Your task to perform on an android device: Go to battery settings Image 0: 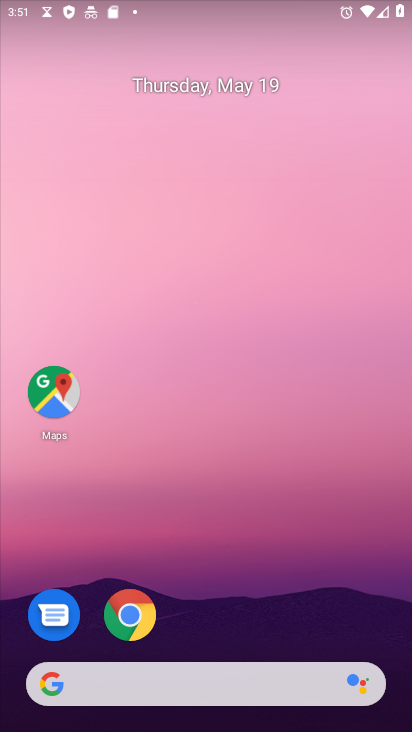
Step 0: drag from (356, 716) to (267, 241)
Your task to perform on an android device: Go to battery settings Image 1: 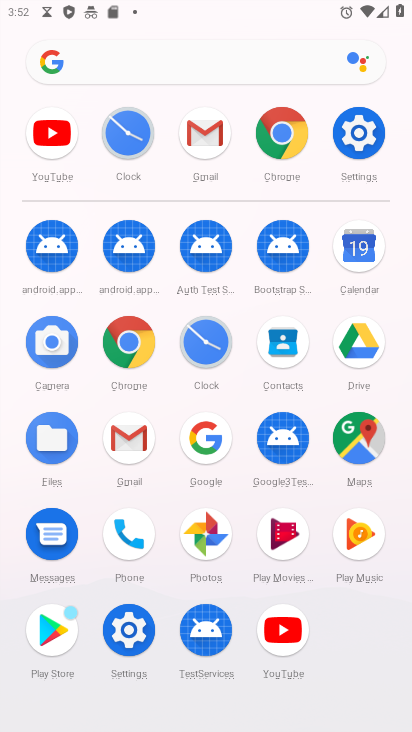
Step 1: click (361, 127)
Your task to perform on an android device: Go to battery settings Image 2: 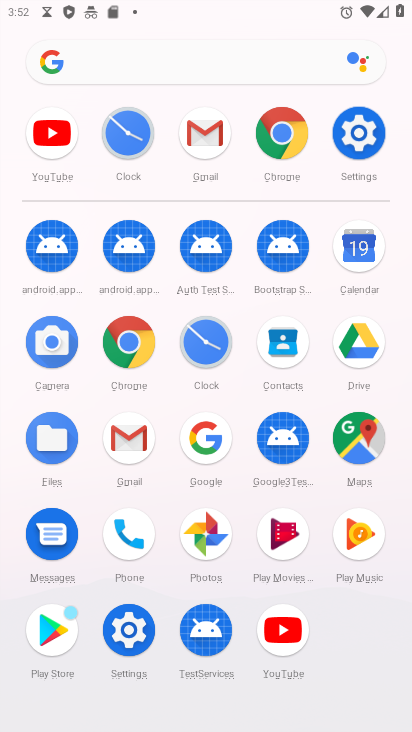
Step 2: click (370, 132)
Your task to perform on an android device: Go to battery settings Image 3: 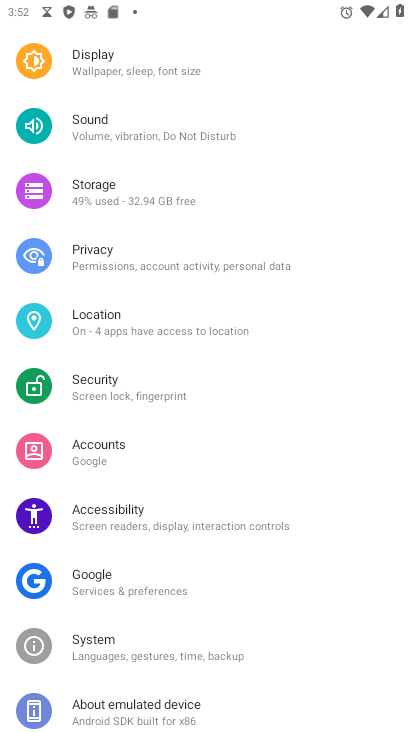
Step 3: click (369, 133)
Your task to perform on an android device: Go to battery settings Image 4: 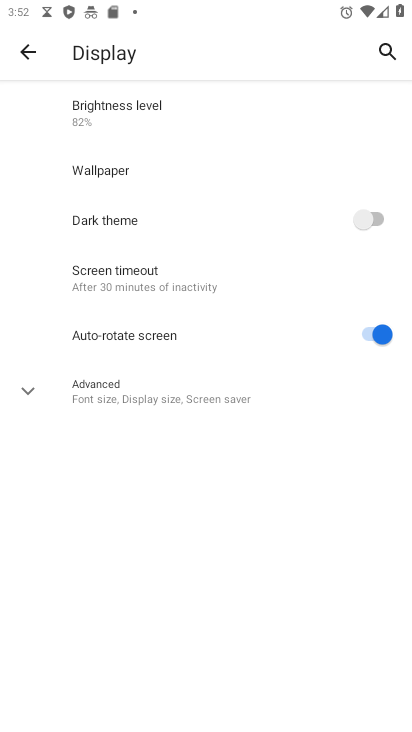
Step 4: click (28, 66)
Your task to perform on an android device: Go to battery settings Image 5: 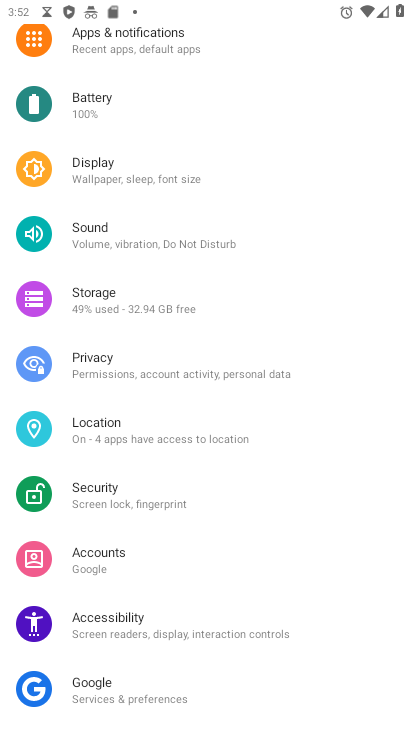
Step 5: click (92, 101)
Your task to perform on an android device: Go to battery settings Image 6: 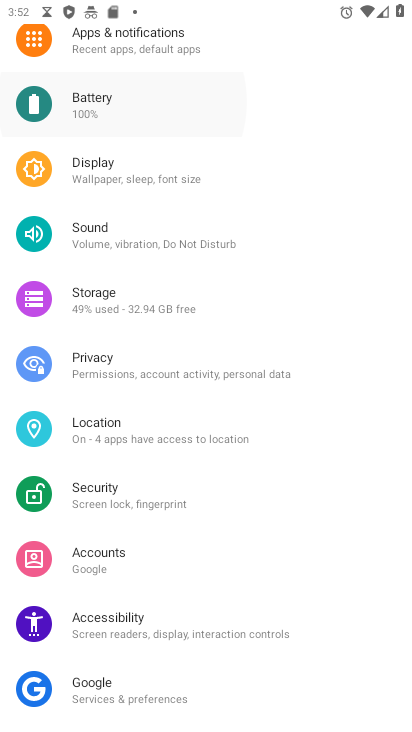
Step 6: click (96, 104)
Your task to perform on an android device: Go to battery settings Image 7: 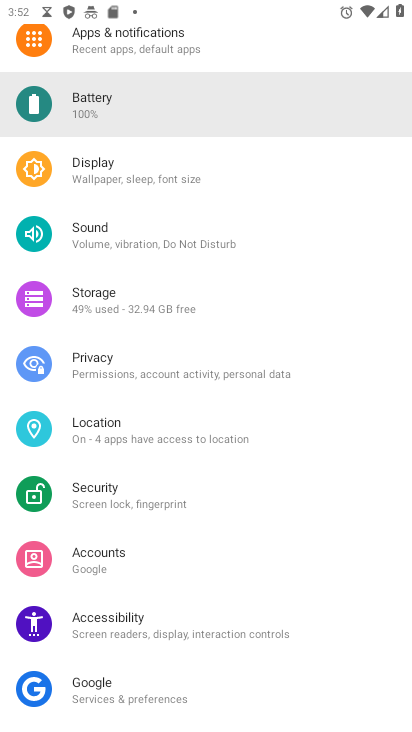
Step 7: click (96, 104)
Your task to perform on an android device: Go to battery settings Image 8: 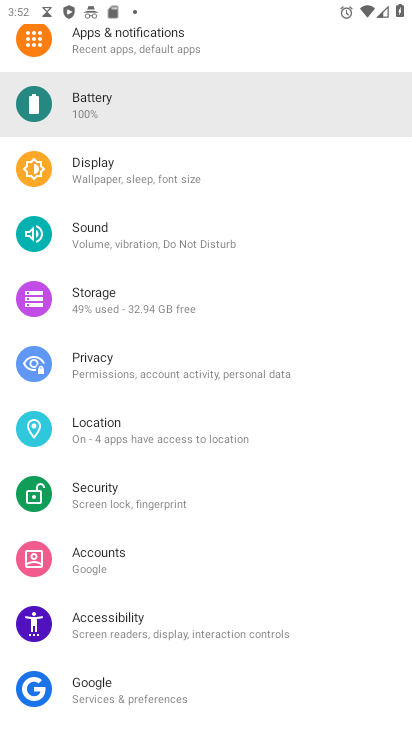
Step 8: click (96, 104)
Your task to perform on an android device: Go to battery settings Image 9: 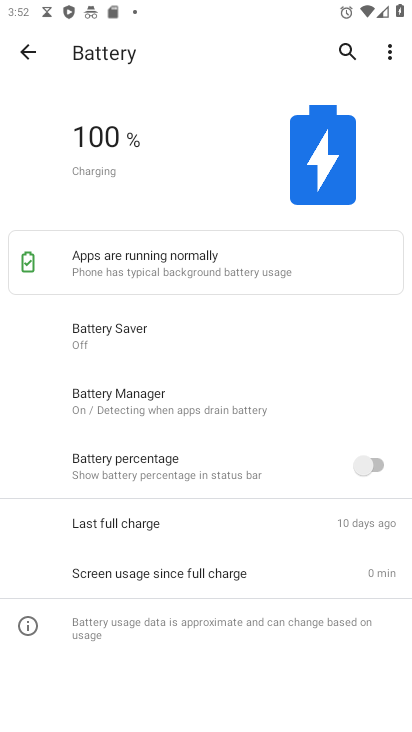
Step 9: task complete